Your task to perform on an android device: Open the calendar and show me this week's events Image 0: 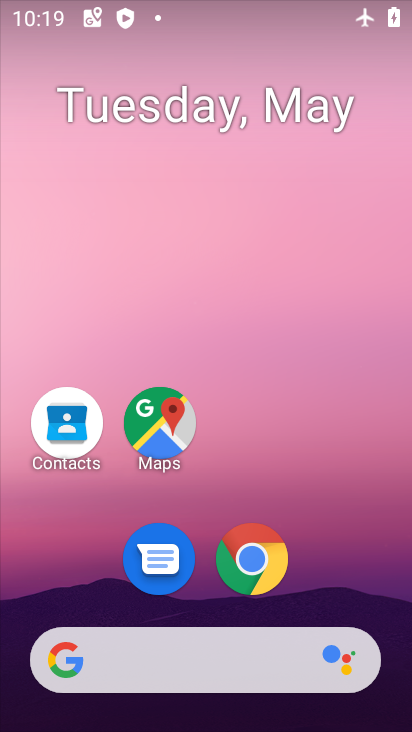
Step 0: drag from (348, 589) to (356, 80)
Your task to perform on an android device: Open the calendar and show me this week's events Image 1: 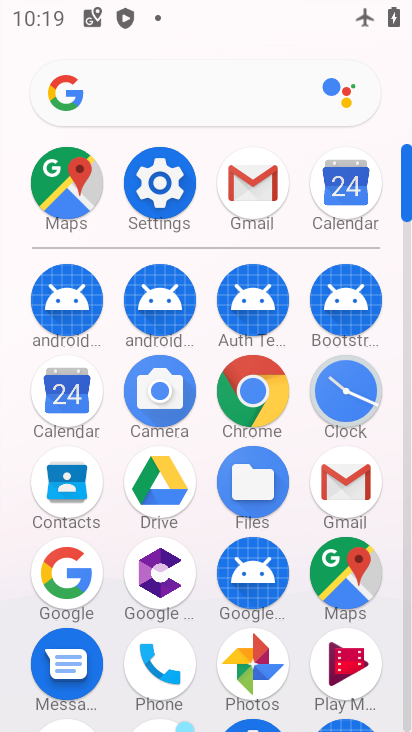
Step 1: click (63, 408)
Your task to perform on an android device: Open the calendar and show me this week's events Image 2: 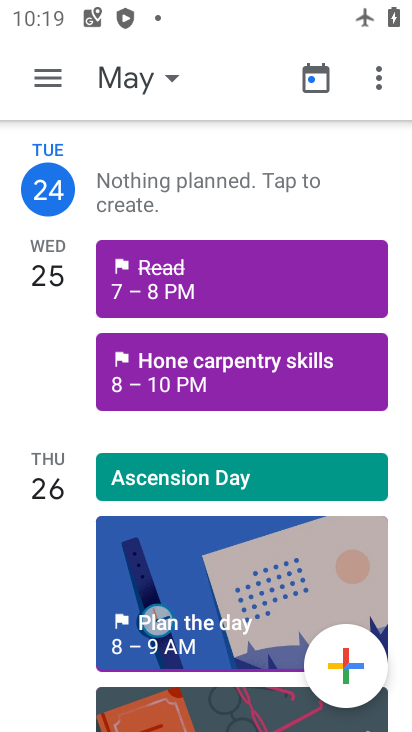
Step 2: task complete